Your task to perform on an android device: all mails in gmail Image 0: 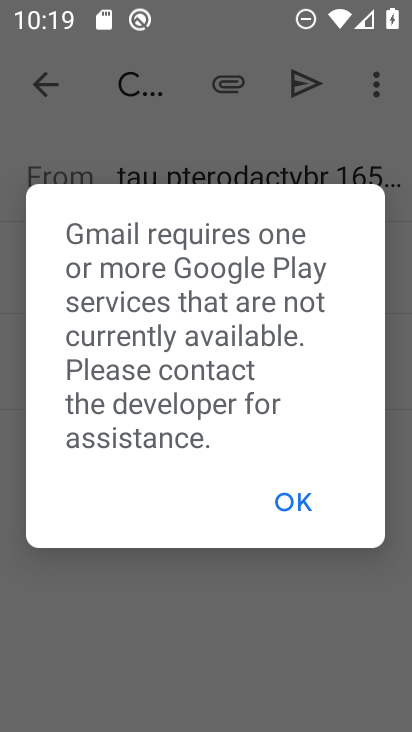
Step 0: press home button
Your task to perform on an android device: all mails in gmail Image 1: 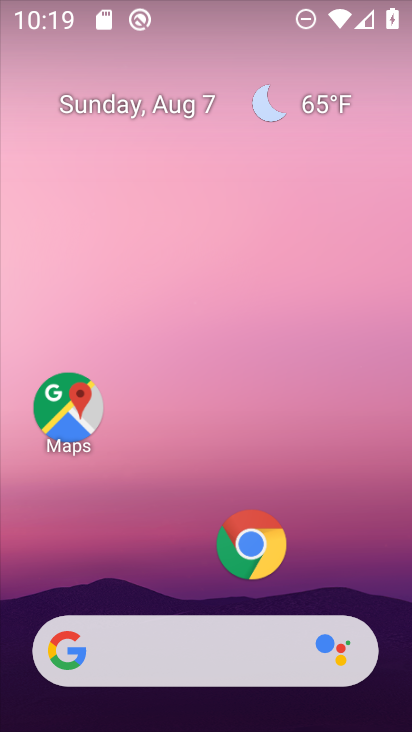
Step 1: drag from (191, 577) to (270, 37)
Your task to perform on an android device: all mails in gmail Image 2: 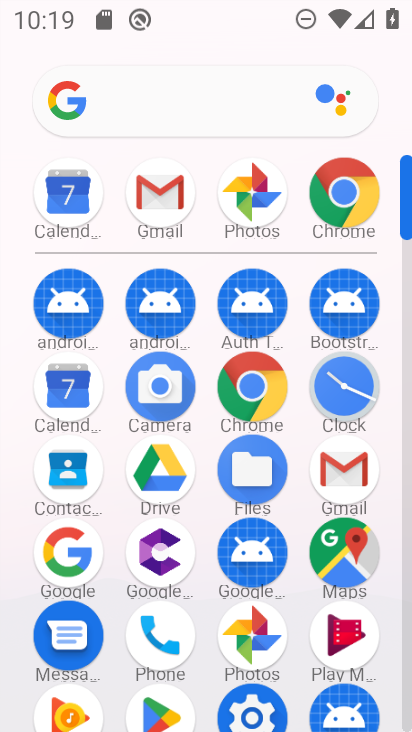
Step 2: click (349, 461)
Your task to perform on an android device: all mails in gmail Image 3: 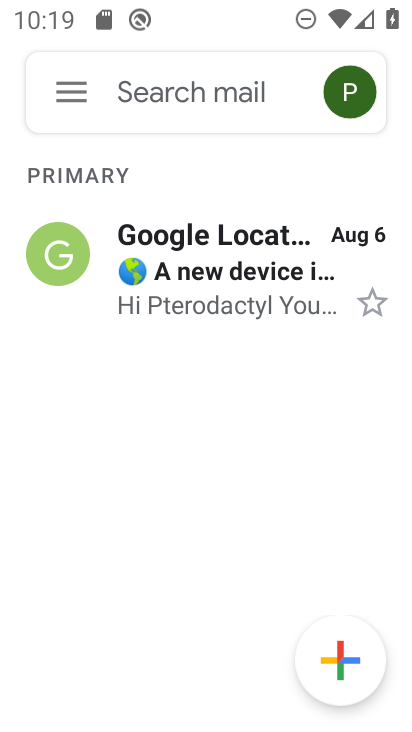
Step 3: drag from (60, 95) to (114, 95)
Your task to perform on an android device: all mails in gmail Image 4: 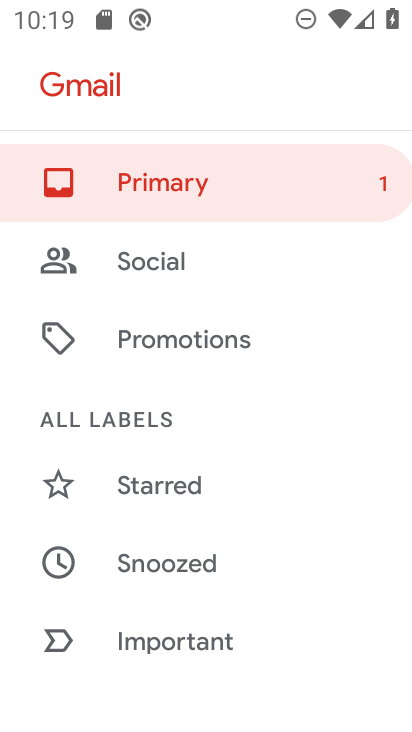
Step 4: drag from (202, 551) to (182, 52)
Your task to perform on an android device: all mails in gmail Image 5: 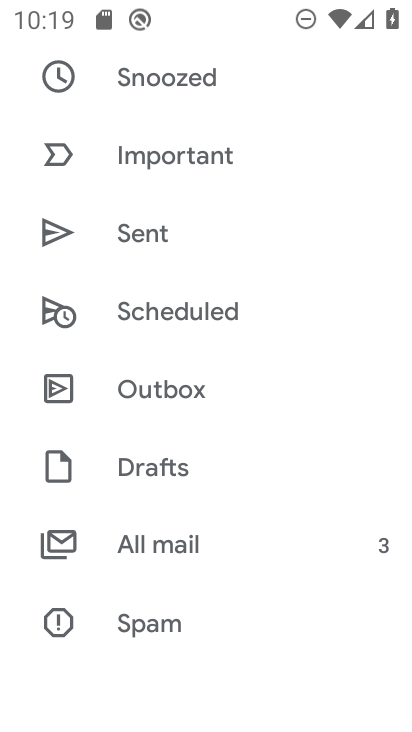
Step 5: click (159, 551)
Your task to perform on an android device: all mails in gmail Image 6: 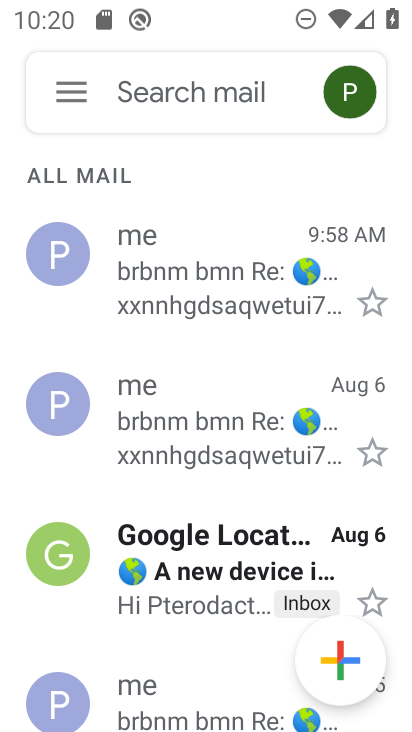
Step 6: task complete